Your task to perform on an android device: What is the news today? Image 0: 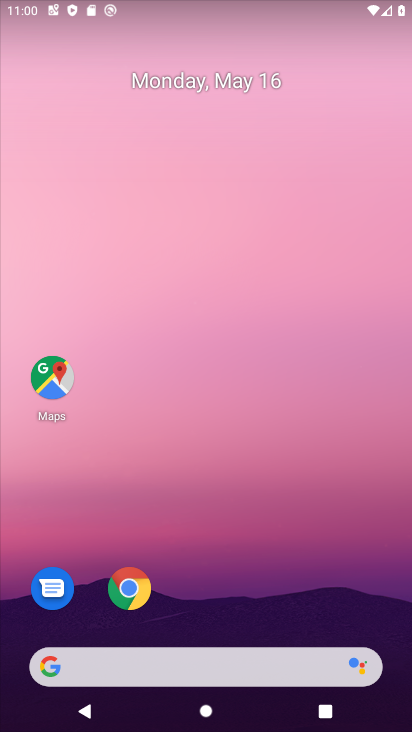
Step 0: drag from (4, 243) to (389, 255)
Your task to perform on an android device: What is the news today? Image 1: 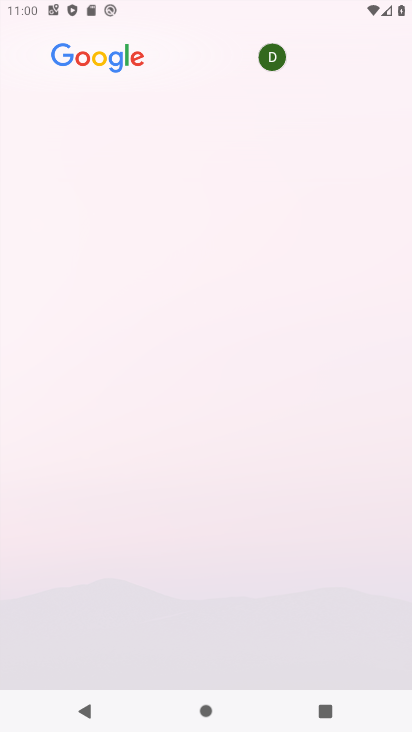
Step 1: task complete